Your task to perform on an android device: turn pop-ups on in chrome Image 0: 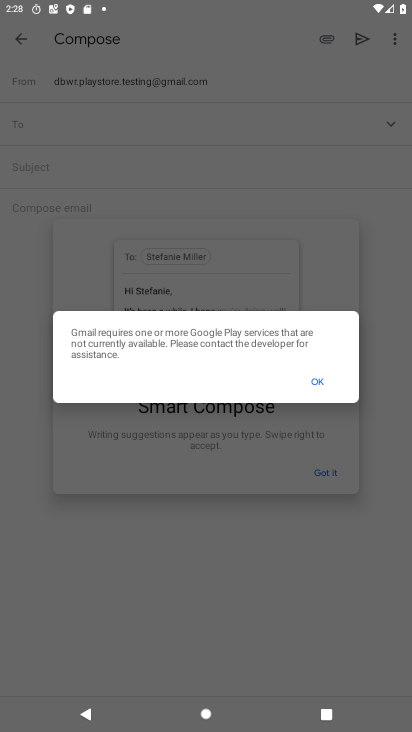
Step 0: press home button
Your task to perform on an android device: turn pop-ups on in chrome Image 1: 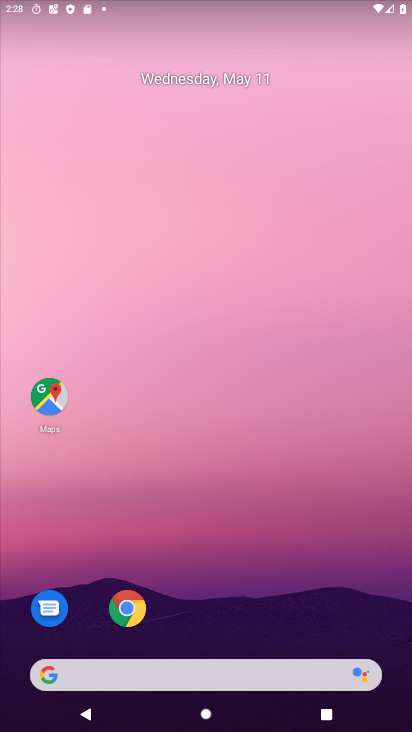
Step 1: click (124, 620)
Your task to perform on an android device: turn pop-ups on in chrome Image 2: 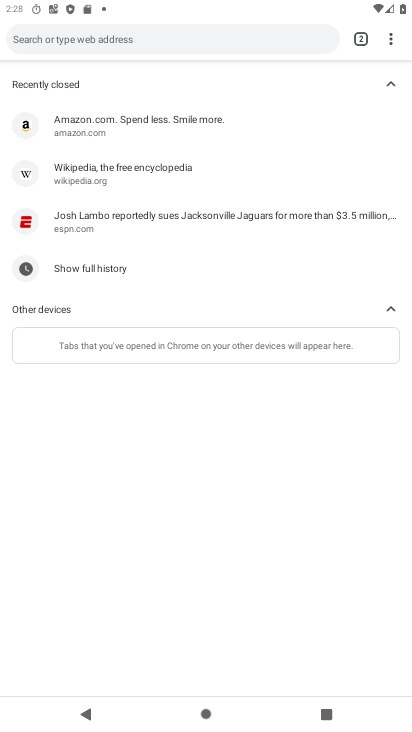
Step 2: click (394, 37)
Your task to perform on an android device: turn pop-ups on in chrome Image 3: 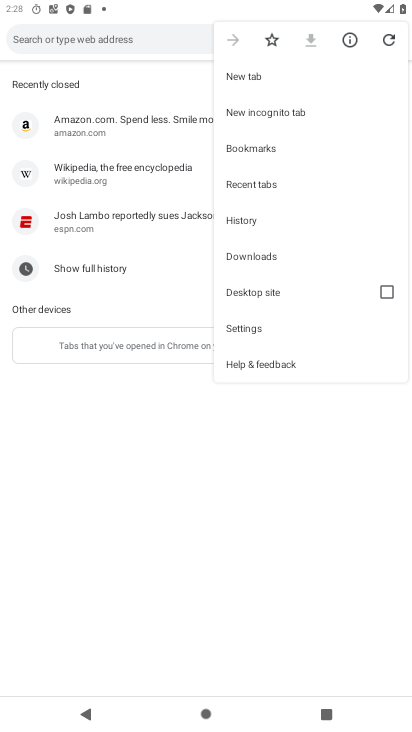
Step 3: click (251, 325)
Your task to perform on an android device: turn pop-ups on in chrome Image 4: 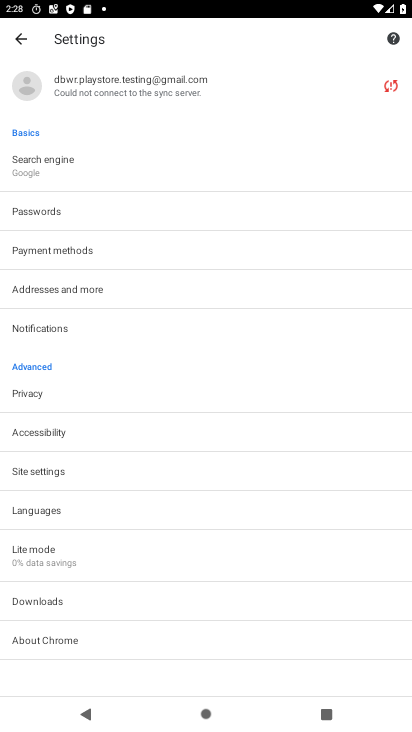
Step 4: click (36, 473)
Your task to perform on an android device: turn pop-ups on in chrome Image 5: 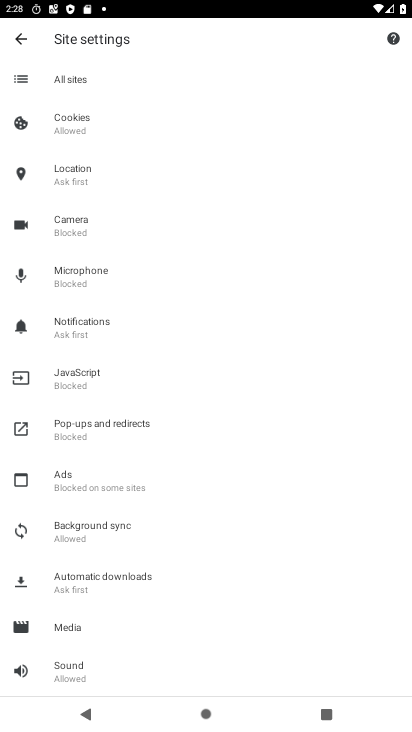
Step 5: click (76, 420)
Your task to perform on an android device: turn pop-ups on in chrome Image 6: 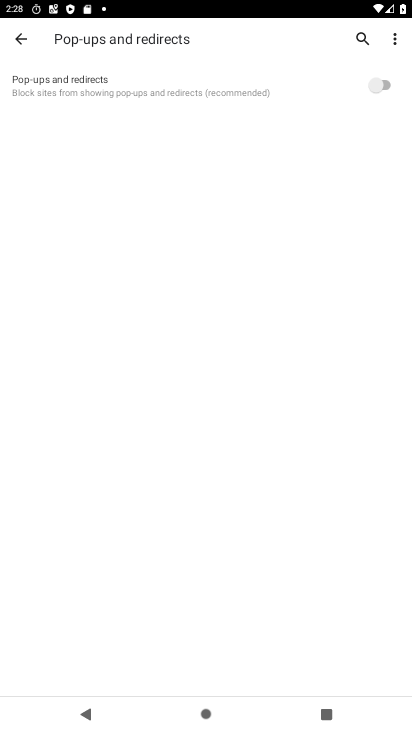
Step 6: click (385, 87)
Your task to perform on an android device: turn pop-ups on in chrome Image 7: 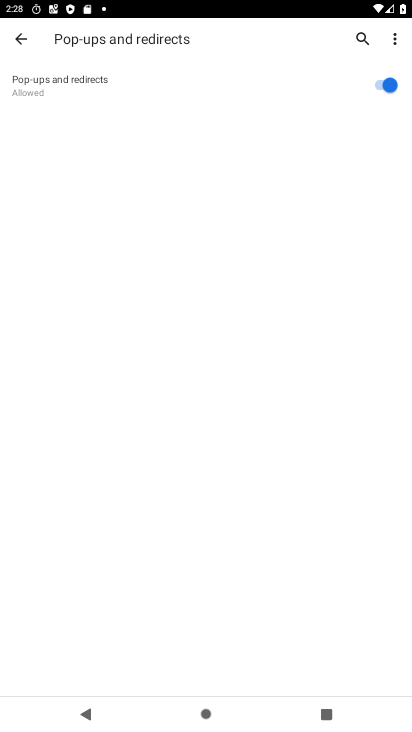
Step 7: task complete